Your task to perform on an android device: Go to settings Image 0: 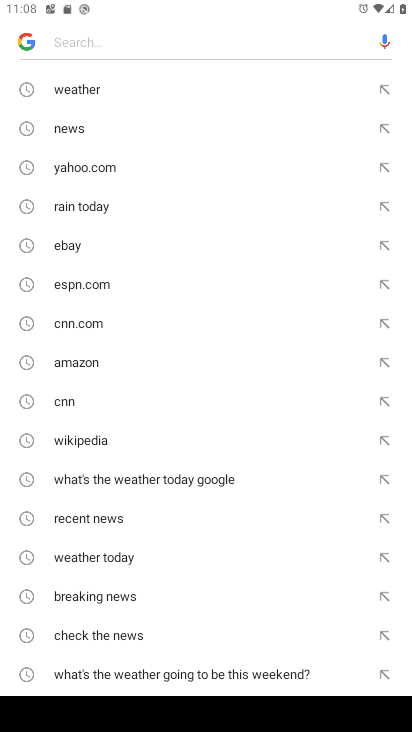
Step 0: press back button
Your task to perform on an android device: Go to settings Image 1: 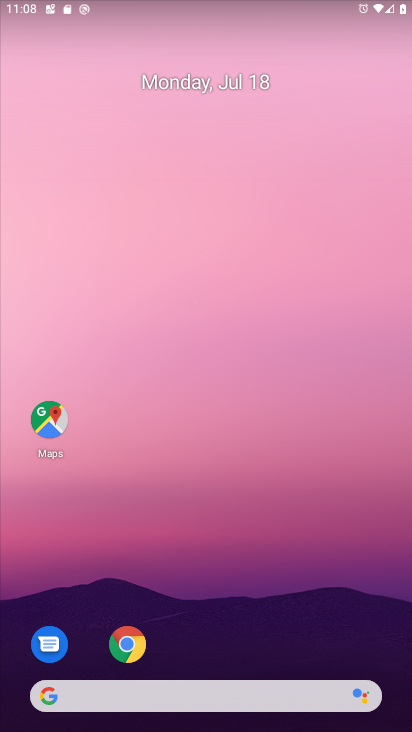
Step 1: drag from (208, 643) to (185, 280)
Your task to perform on an android device: Go to settings Image 2: 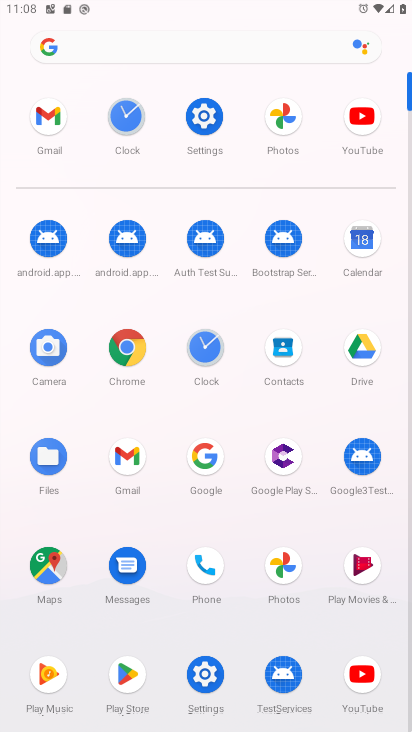
Step 2: click (206, 142)
Your task to perform on an android device: Go to settings Image 3: 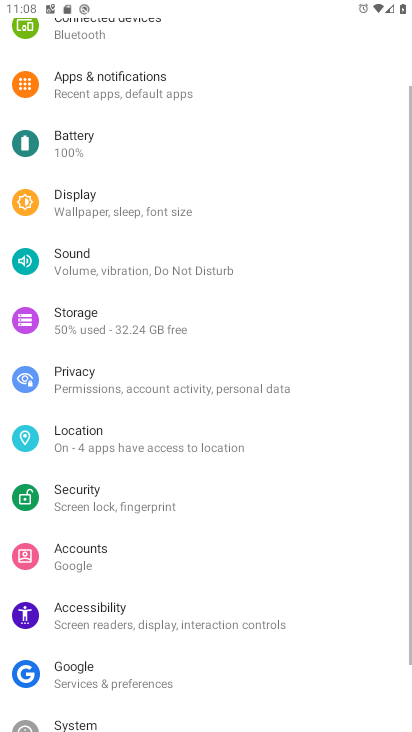
Step 3: task complete